Your task to perform on an android device: Open Android settings Image 0: 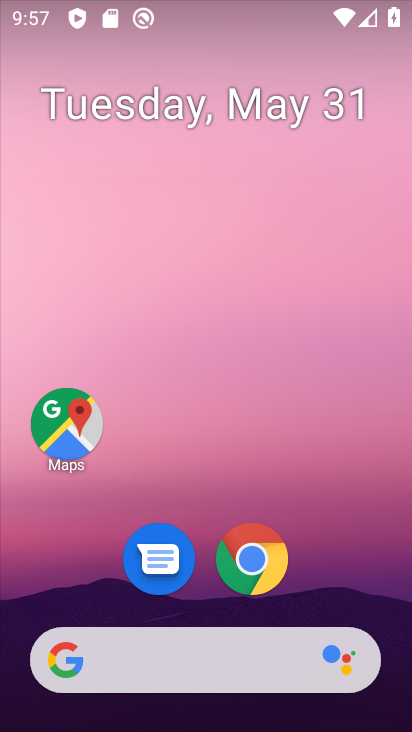
Step 0: drag from (62, 611) to (195, 142)
Your task to perform on an android device: Open Android settings Image 1: 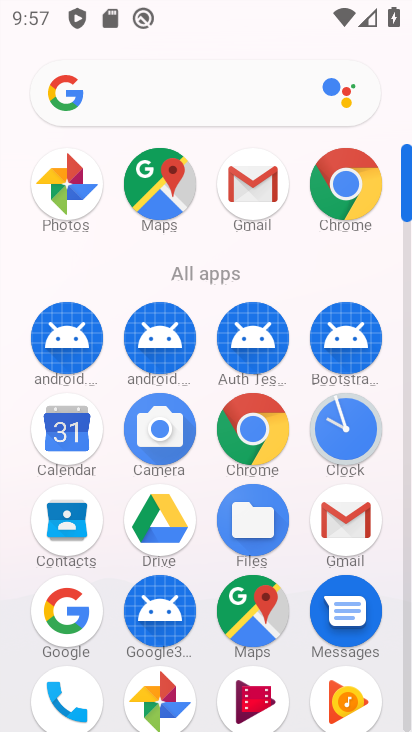
Step 1: drag from (217, 690) to (280, 337)
Your task to perform on an android device: Open Android settings Image 2: 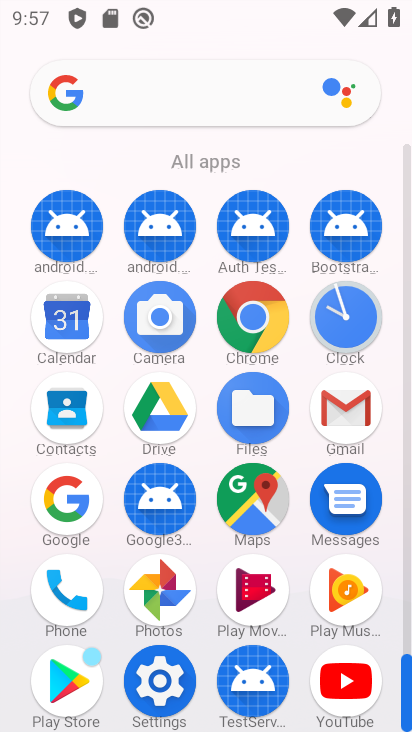
Step 2: click (163, 691)
Your task to perform on an android device: Open Android settings Image 3: 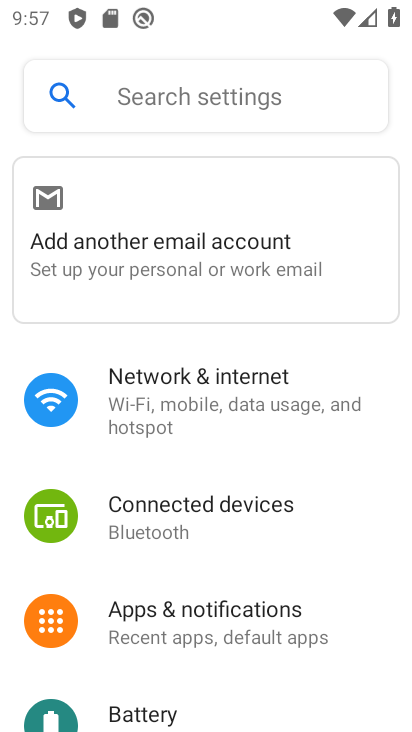
Step 3: task complete